Your task to perform on an android device: open app "Airtel Thanks" (install if not already installed), go to login, and select forgot password Image 0: 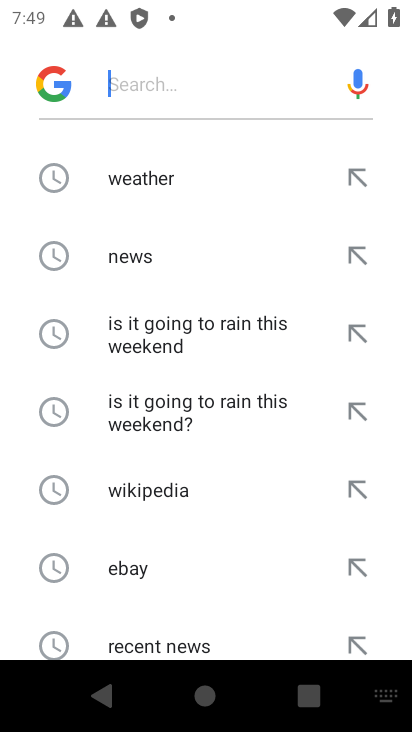
Step 0: press home button
Your task to perform on an android device: open app "Airtel Thanks" (install if not already installed), go to login, and select forgot password Image 1: 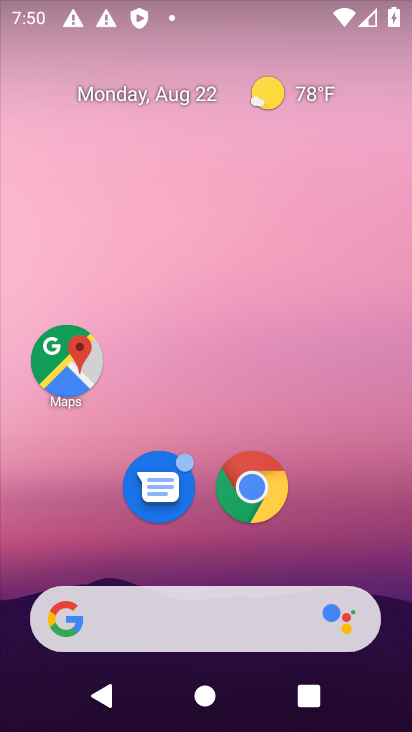
Step 1: drag from (120, 633) to (19, 26)
Your task to perform on an android device: open app "Airtel Thanks" (install if not already installed), go to login, and select forgot password Image 2: 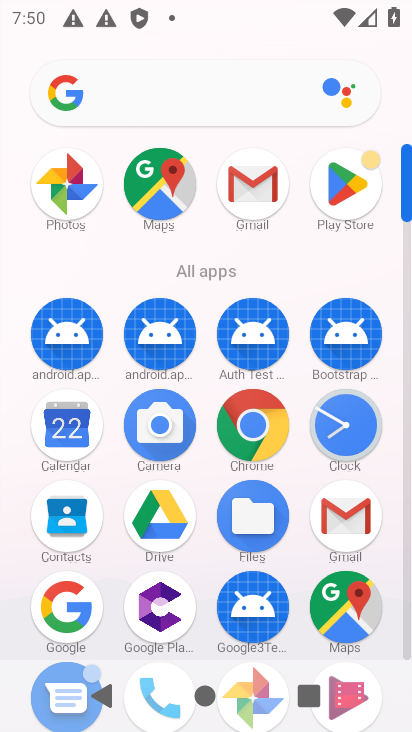
Step 2: click (358, 178)
Your task to perform on an android device: open app "Airtel Thanks" (install if not already installed), go to login, and select forgot password Image 3: 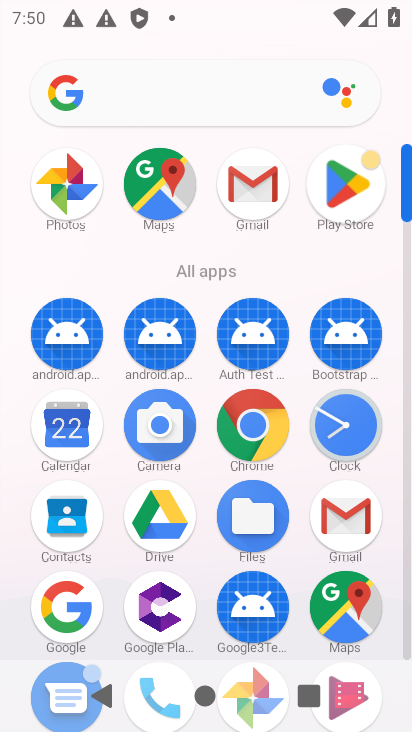
Step 3: click (328, 194)
Your task to perform on an android device: open app "Airtel Thanks" (install if not already installed), go to login, and select forgot password Image 4: 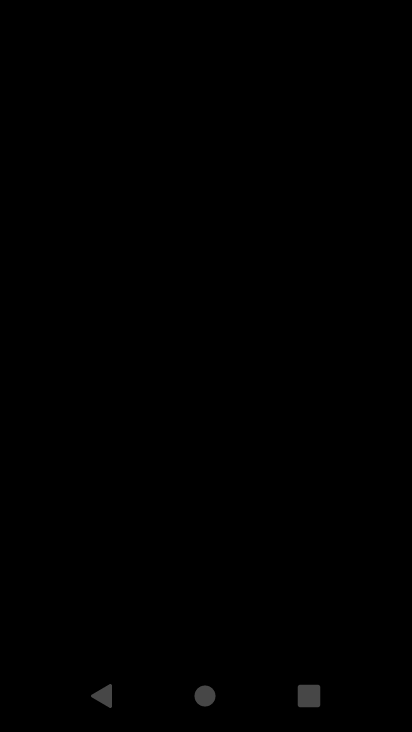
Step 4: task complete